Your task to perform on an android device: Go to accessibility settings Image 0: 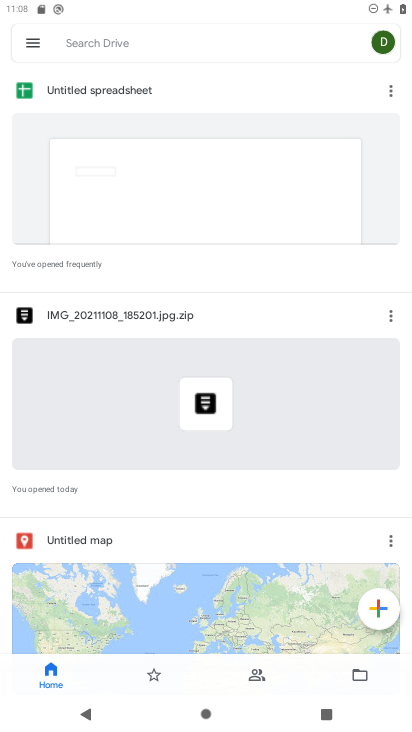
Step 0: press home button
Your task to perform on an android device: Go to accessibility settings Image 1: 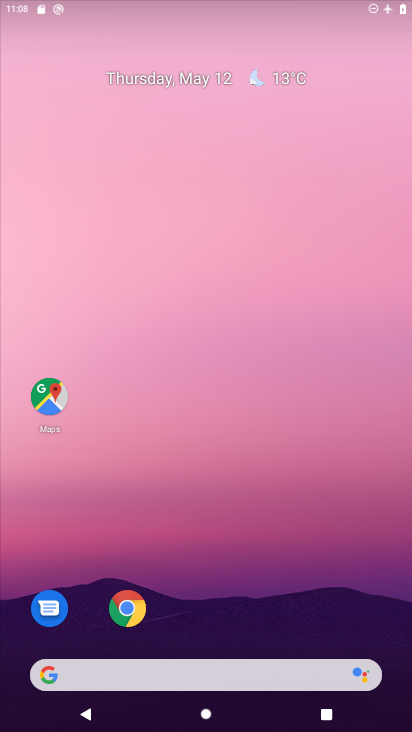
Step 1: drag from (241, 618) to (248, 89)
Your task to perform on an android device: Go to accessibility settings Image 2: 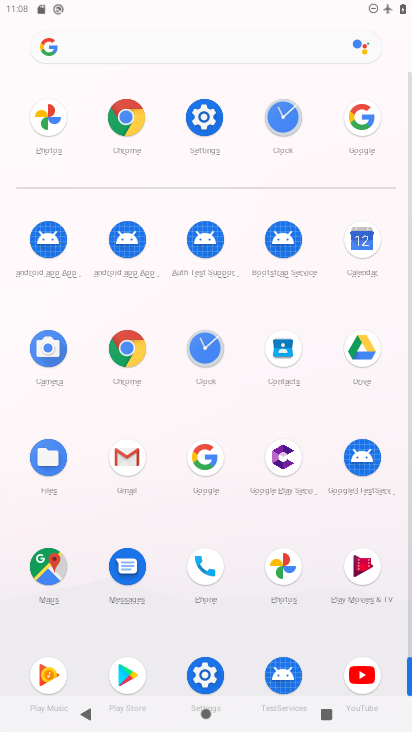
Step 2: click (200, 110)
Your task to perform on an android device: Go to accessibility settings Image 3: 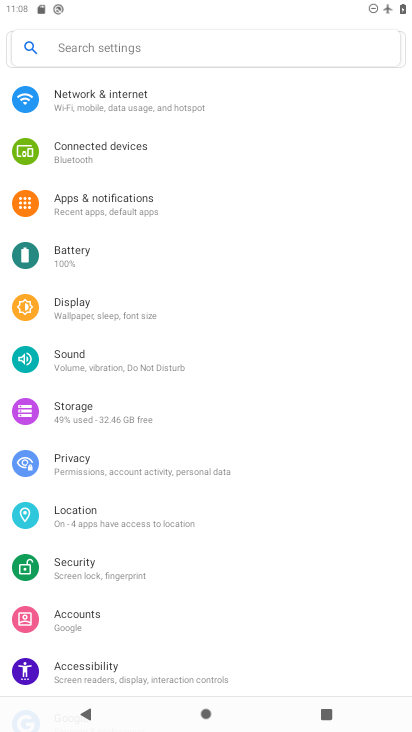
Step 3: drag from (170, 598) to (150, 440)
Your task to perform on an android device: Go to accessibility settings Image 4: 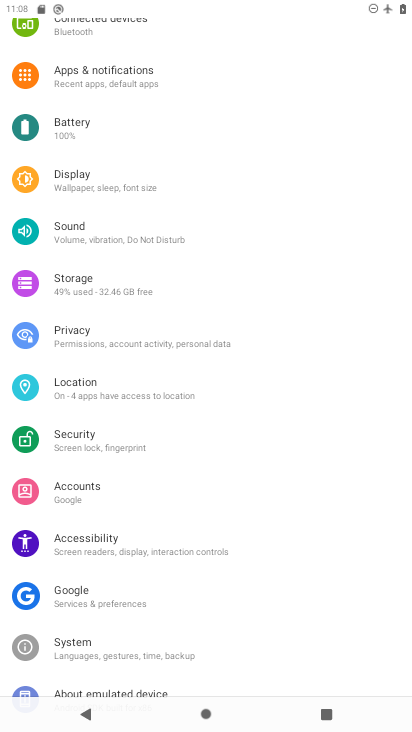
Step 4: click (116, 536)
Your task to perform on an android device: Go to accessibility settings Image 5: 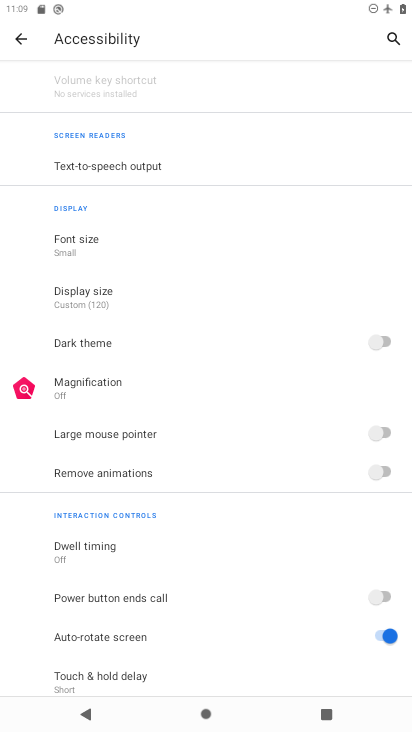
Step 5: task complete